Your task to perform on an android device: Go to ESPN.com Image 0: 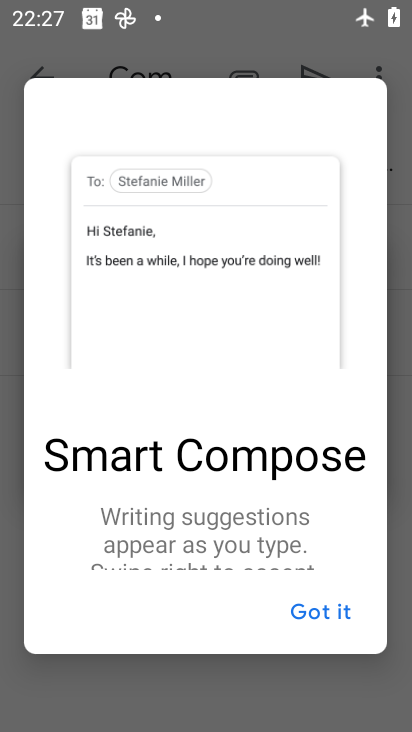
Step 0: press home button
Your task to perform on an android device: Go to ESPN.com Image 1: 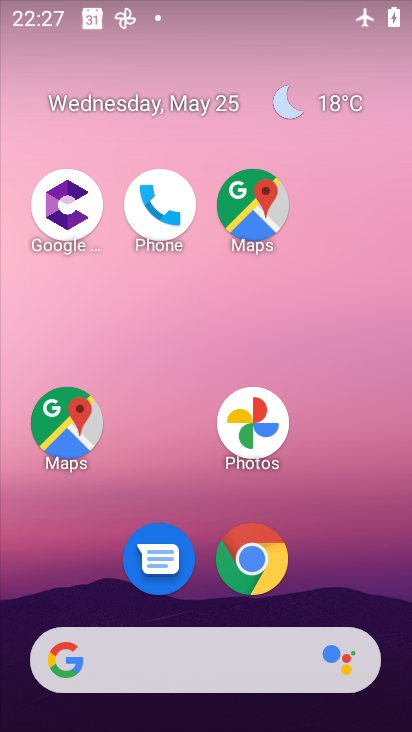
Step 1: click (249, 552)
Your task to perform on an android device: Go to ESPN.com Image 2: 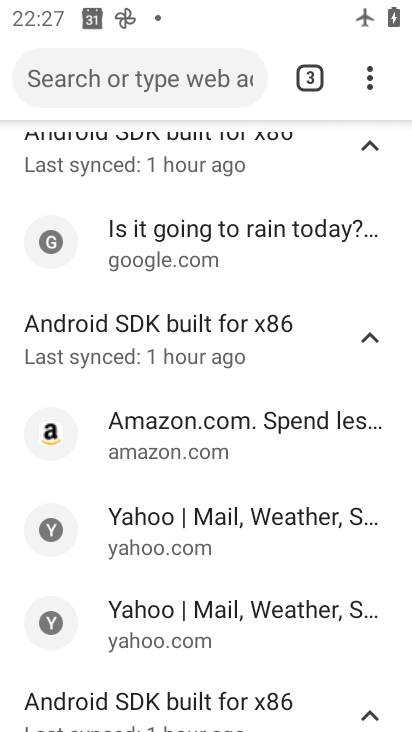
Step 2: click (316, 76)
Your task to perform on an android device: Go to ESPN.com Image 3: 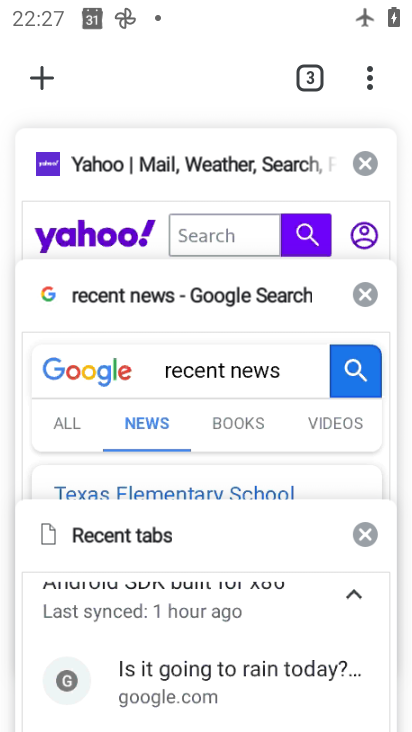
Step 3: click (43, 74)
Your task to perform on an android device: Go to ESPN.com Image 4: 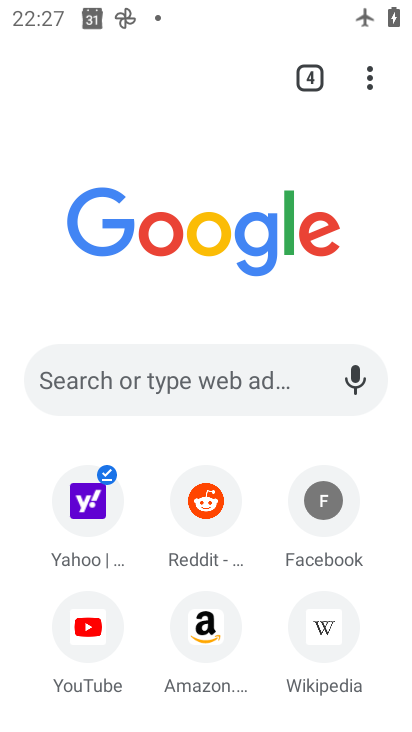
Step 4: click (248, 391)
Your task to perform on an android device: Go to ESPN.com Image 5: 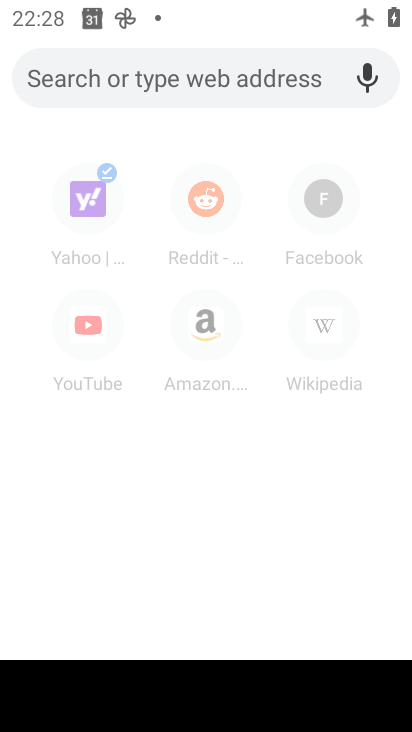
Step 5: type "ESPN.com"
Your task to perform on an android device: Go to ESPN.com Image 6: 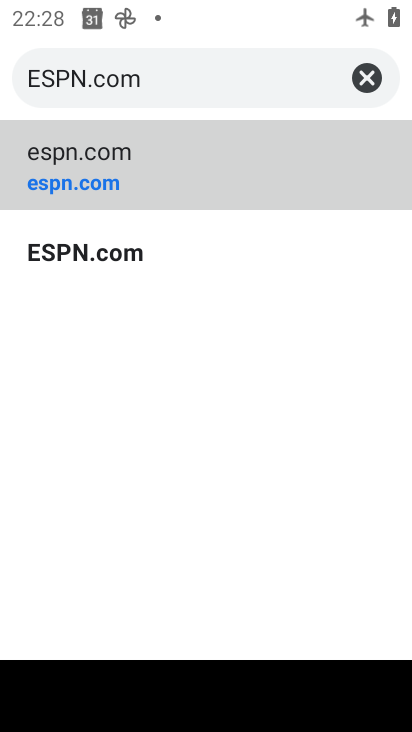
Step 6: click (96, 181)
Your task to perform on an android device: Go to ESPN.com Image 7: 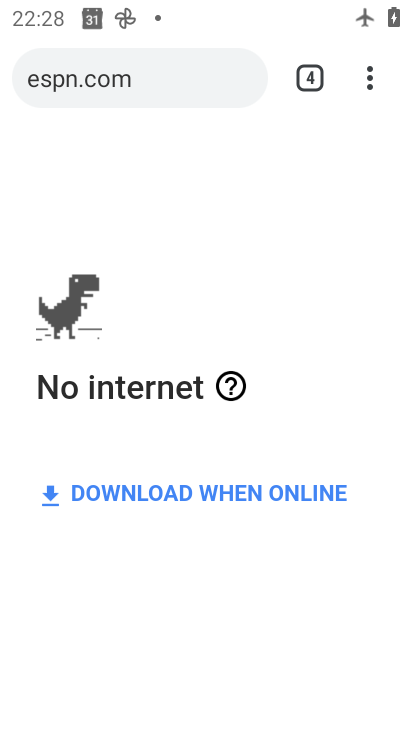
Step 7: task complete